Your task to perform on an android device: Go to calendar. Show me events next week Image 0: 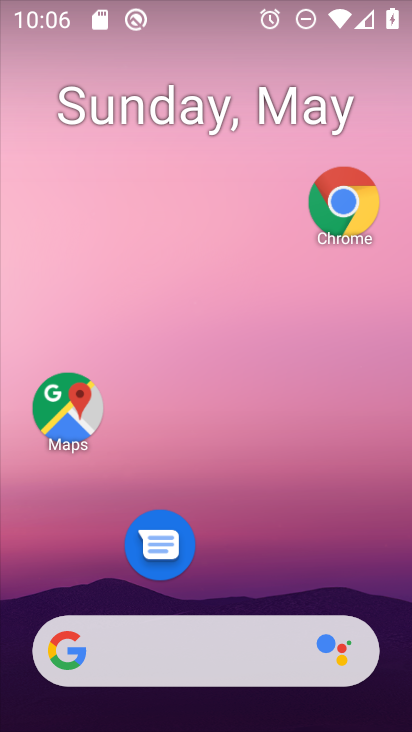
Step 0: drag from (221, 574) to (225, 50)
Your task to perform on an android device: Go to calendar. Show me events next week Image 1: 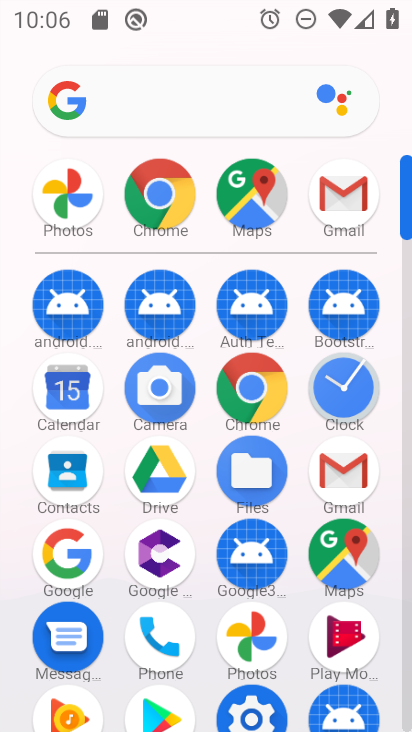
Step 1: click (59, 395)
Your task to perform on an android device: Go to calendar. Show me events next week Image 2: 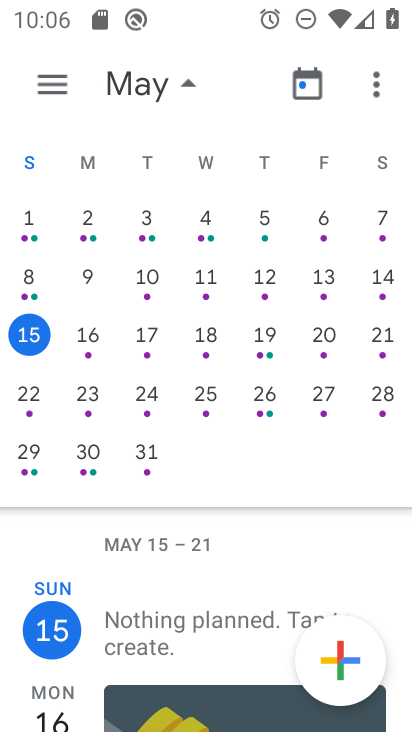
Step 2: click (36, 399)
Your task to perform on an android device: Go to calendar. Show me events next week Image 3: 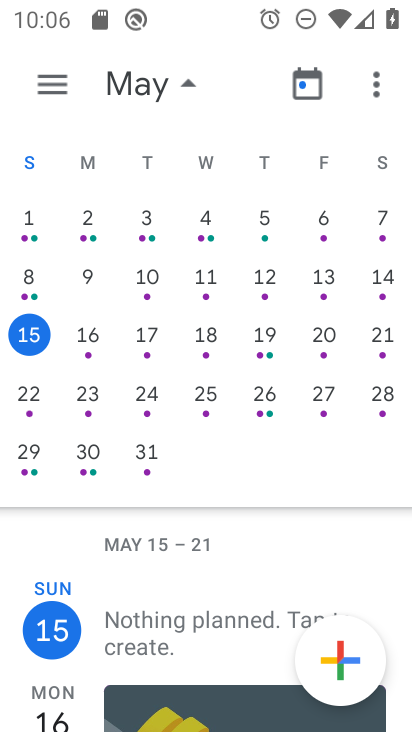
Step 3: click (40, 413)
Your task to perform on an android device: Go to calendar. Show me events next week Image 4: 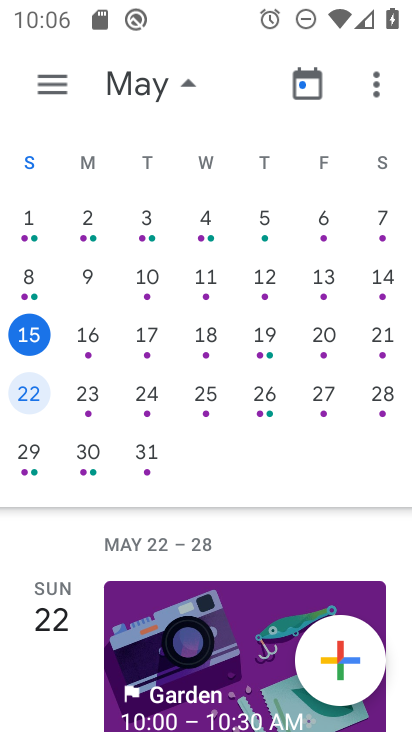
Step 4: task complete